Your task to perform on an android device: toggle javascript in the chrome app Image 0: 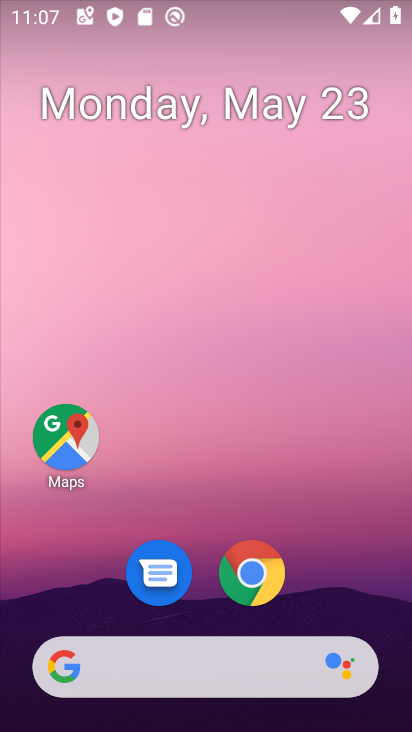
Step 0: drag from (295, 679) to (286, 547)
Your task to perform on an android device: toggle javascript in the chrome app Image 1: 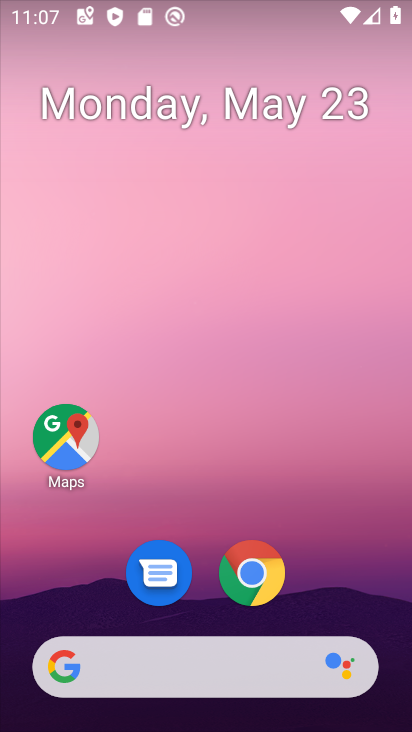
Step 1: drag from (225, 645) to (196, 120)
Your task to perform on an android device: toggle javascript in the chrome app Image 2: 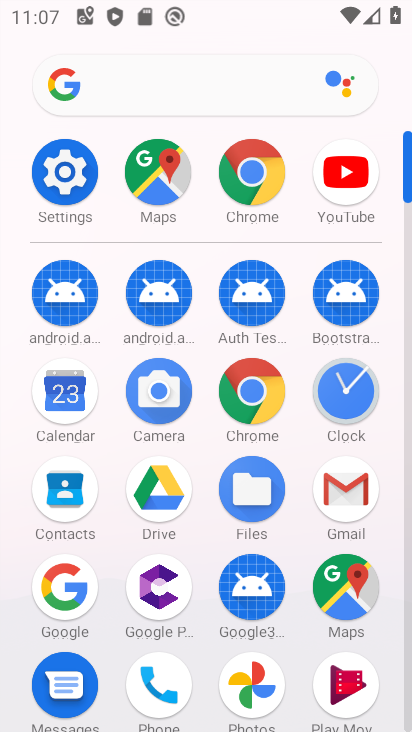
Step 2: click (258, 159)
Your task to perform on an android device: toggle javascript in the chrome app Image 3: 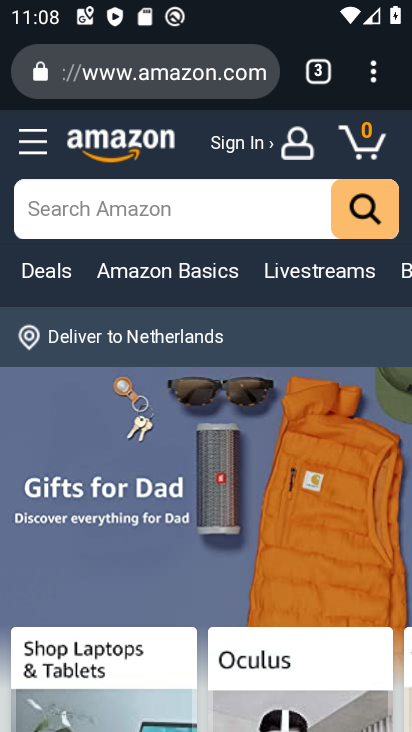
Step 3: click (371, 70)
Your task to perform on an android device: toggle javascript in the chrome app Image 4: 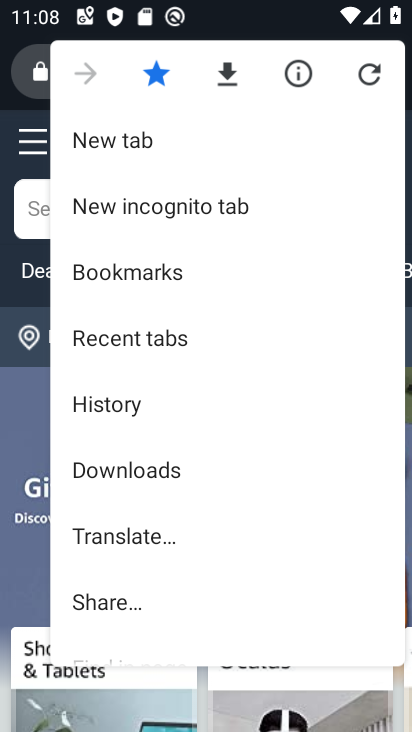
Step 4: drag from (142, 529) to (132, 267)
Your task to perform on an android device: toggle javascript in the chrome app Image 5: 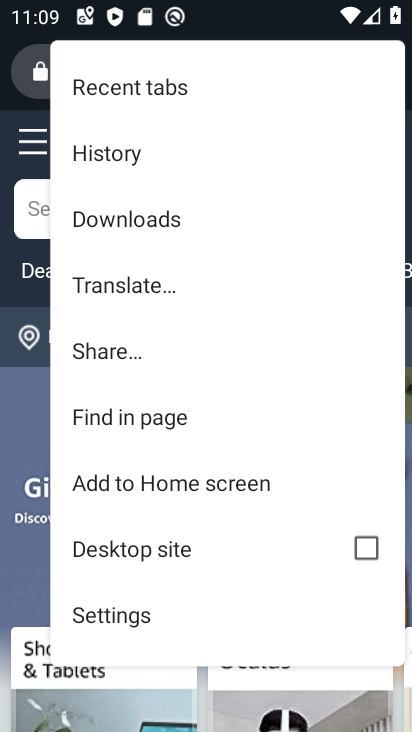
Step 5: click (147, 623)
Your task to perform on an android device: toggle javascript in the chrome app Image 6: 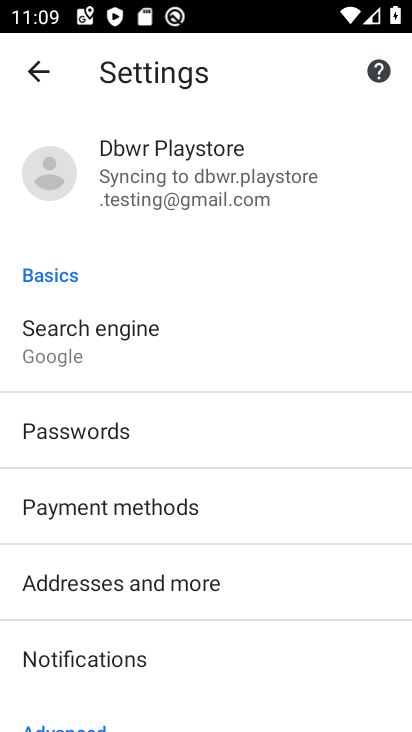
Step 6: drag from (147, 623) to (200, 313)
Your task to perform on an android device: toggle javascript in the chrome app Image 7: 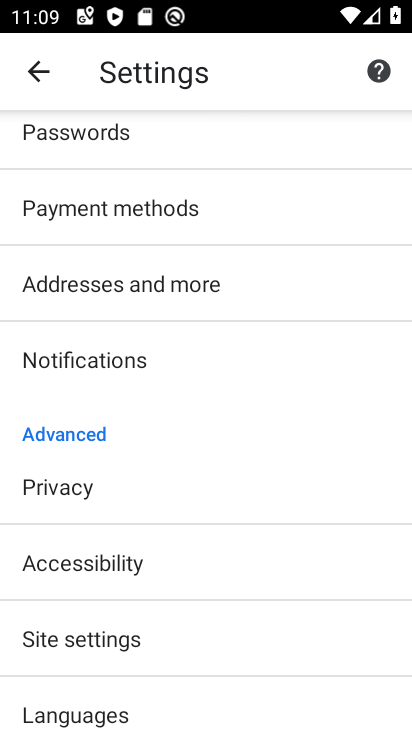
Step 7: click (170, 653)
Your task to perform on an android device: toggle javascript in the chrome app Image 8: 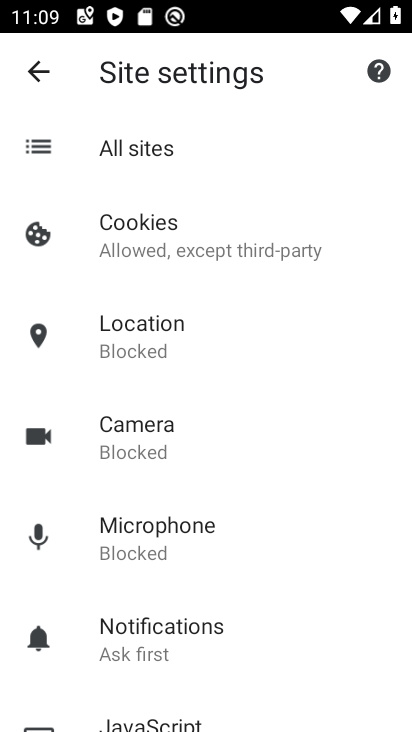
Step 8: drag from (170, 653) to (139, 318)
Your task to perform on an android device: toggle javascript in the chrome app Image 9: 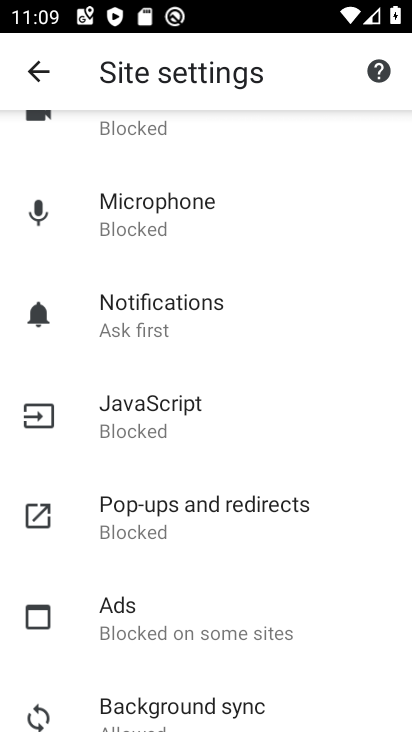
Step 9: click (146, 441)
Your task to perform on an android device: toggle javascript in the chrome app Image 10: 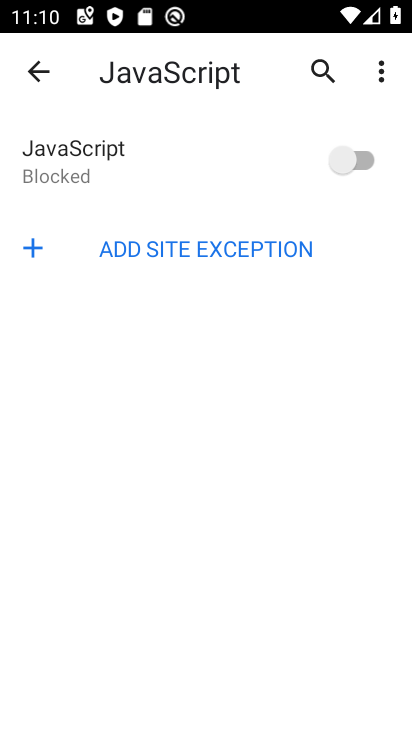
Step 10: click (293, 152)
Your task to perform on an android device: toggle javascript in the chrome app Image 11: 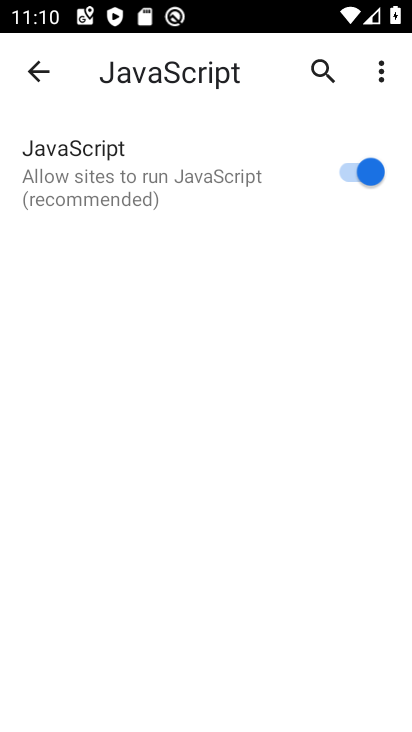
Step 11: task complete